Your task to perform on an android device: Search for sushi restaurants on Maps Image 0: 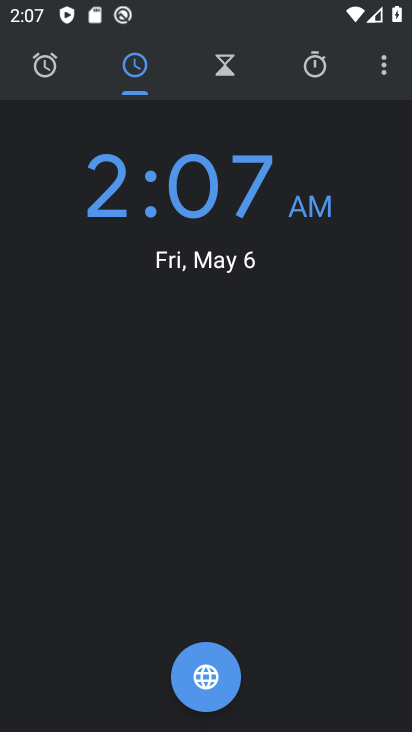
Step 0: press home button
Your task to perform on an android device: Search for sushi restaurants on Maps Image 1: 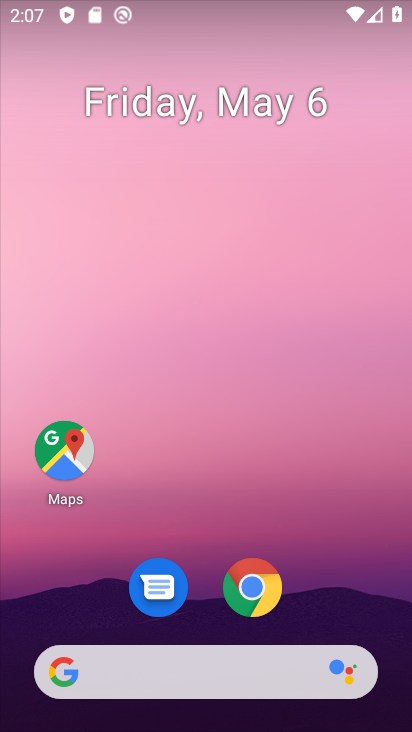
Step 1: click (53, 444)
Your task to perform on an android device: Search for sushi restaurants on Maps Image 2: 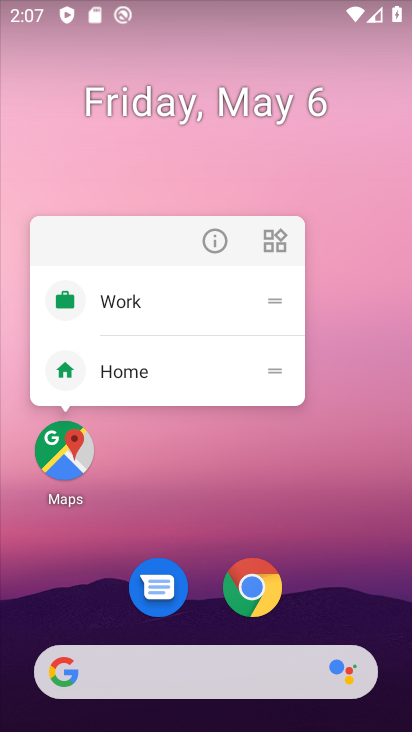
Step 2: click (53, 442)
Your task to perform on an android device: Search for sushi restaurants on Maps Image 3: 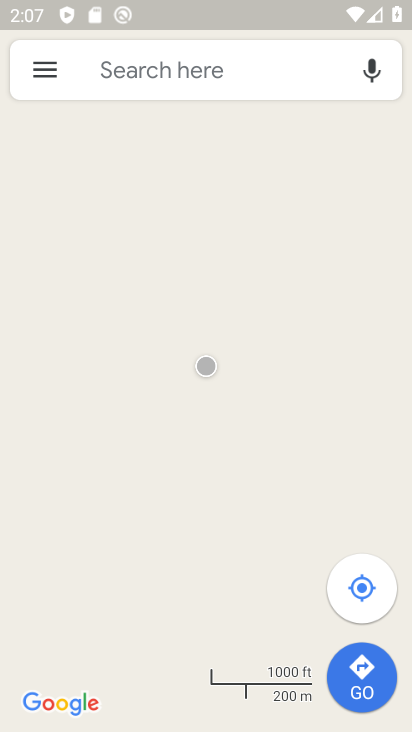
Step 3: click (246, 68)
Your task to perform on an android device: Search for sushi restaurants on Maps Image 4: 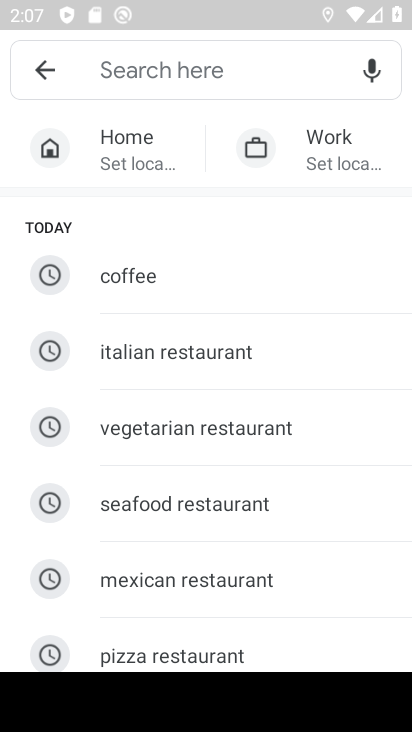
Step 4: drag from (174, 522) to (226, 322)
Your task to perform on an android device: Search for sushi restaurants on Maps Image 5: 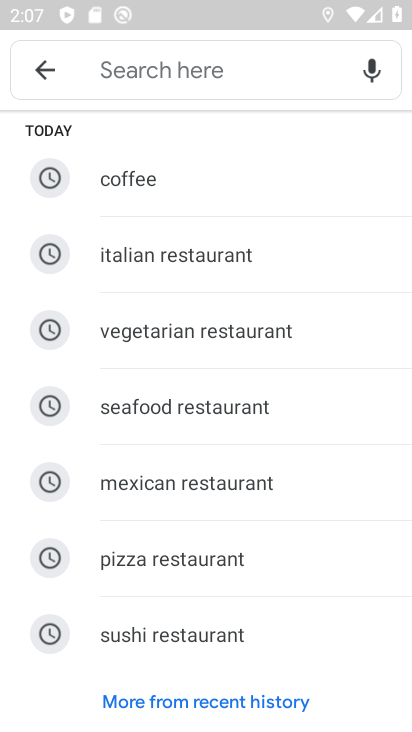
Step 5: click (208, 627)
Your task to perform on an android device: Search for sushi restaurants on Maps Image 6: 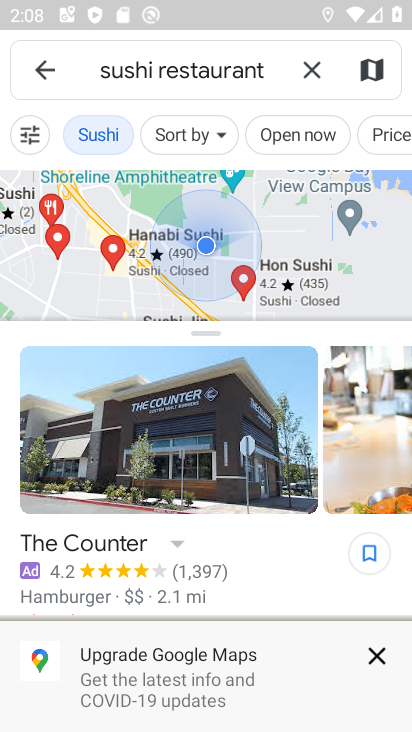
Step 6: task complete